Your task to perform on an android device: toggle sleep mode Image 0: 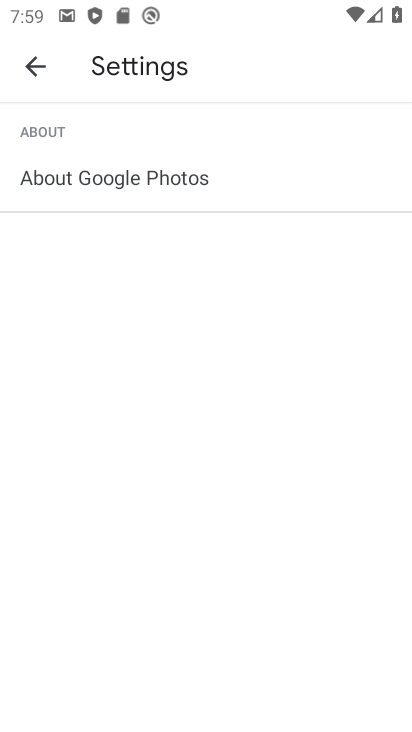
Step 0: press home button
Your task to perform on an android device: toggle sleep mode Image 1: 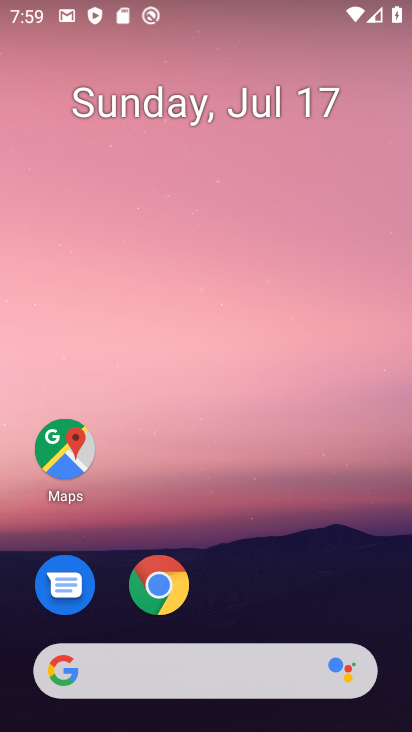
Step 1: drag from (197, 665) to (257, 5)
Your task to perform on an android device: toggle sleep mode Image 2: 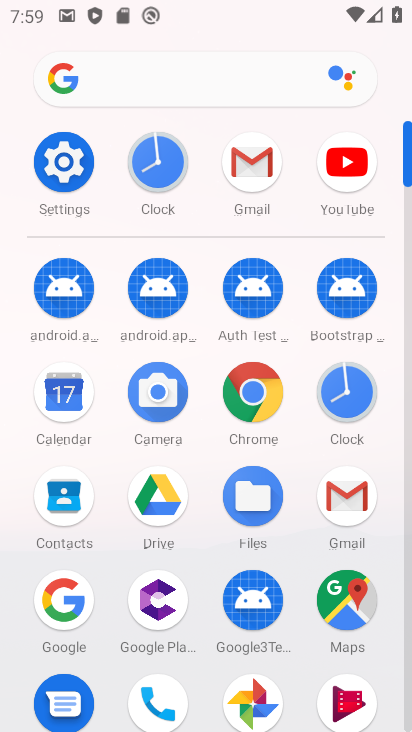
Step 2: click (55, 175)
Your task to perform on an android device: toggle sleep mode Image 3: 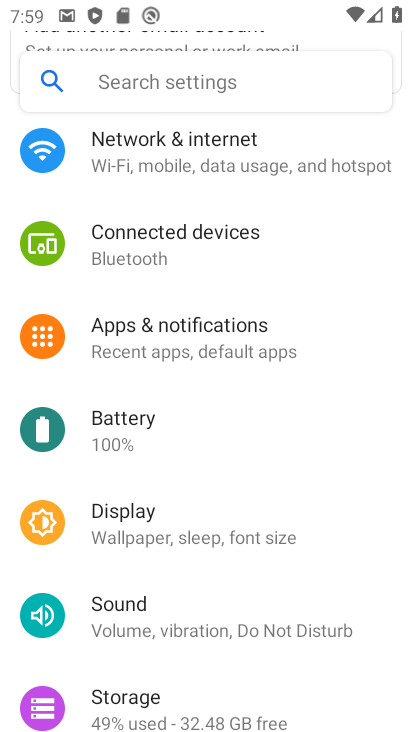
Step 3: click (199, 548)
Your task to perform on an android device: toggle sleep mode Image 4: 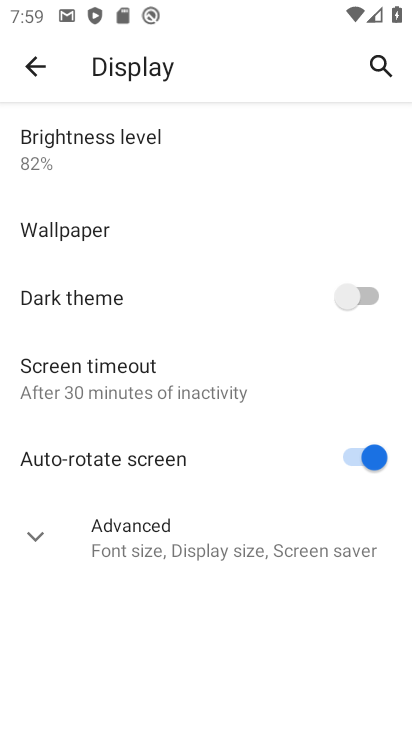
Step 4: click (95, 534)
Your task to perform on an android device: toggle sleep mode Image 5: 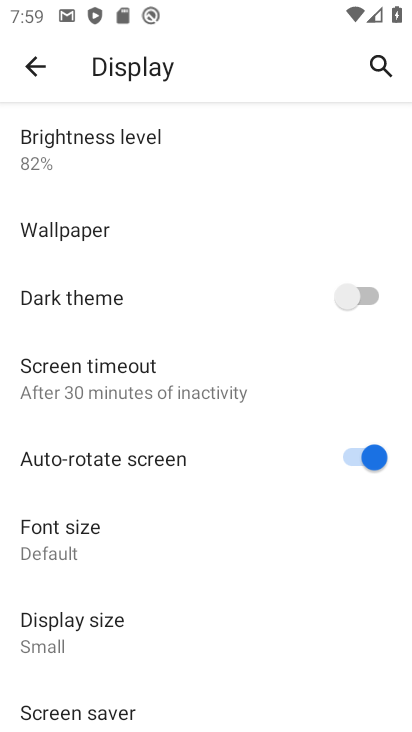
Step 5: task complete